Your task to perform on an android device: toggle javascript in the chrome app Image 0: 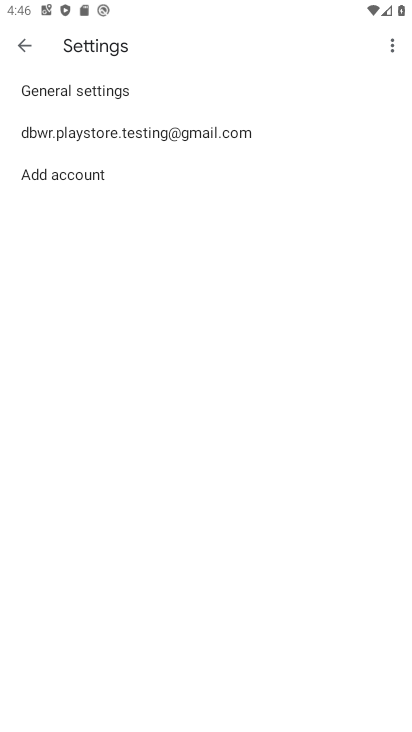
Step 0: press home button
Your task to perform on an android device: toggle javascript in the chrome app Image 1: 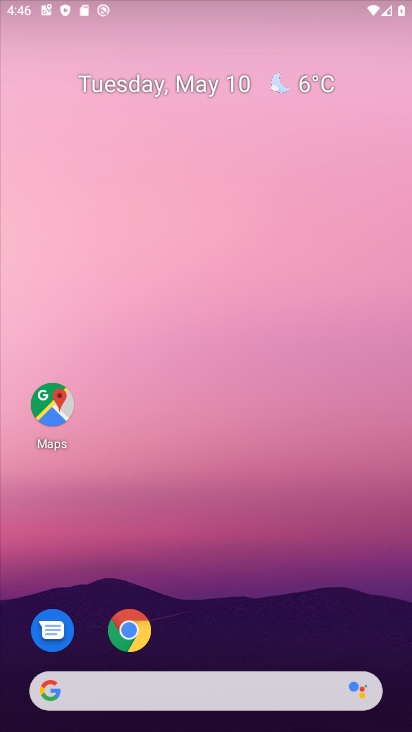
Step 1: drag from (352, 595) to (241, 116)
Your task to perform on an android device: toggle javascript in the chrome app Image 2: 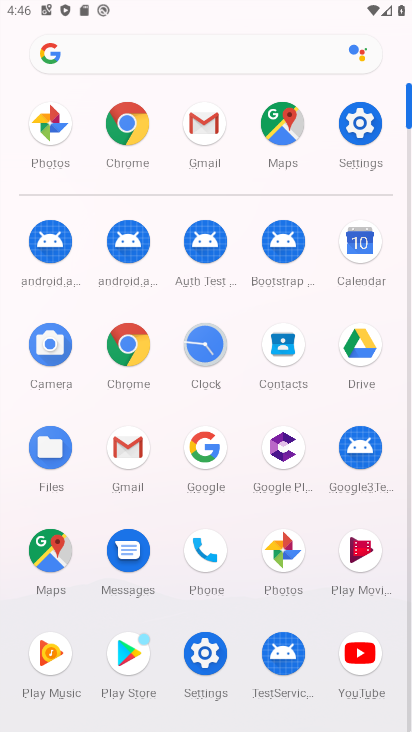
Step 2: click (131, 347)
Your task to perform on an android device: toggle javascript in the chrome app Image 3: 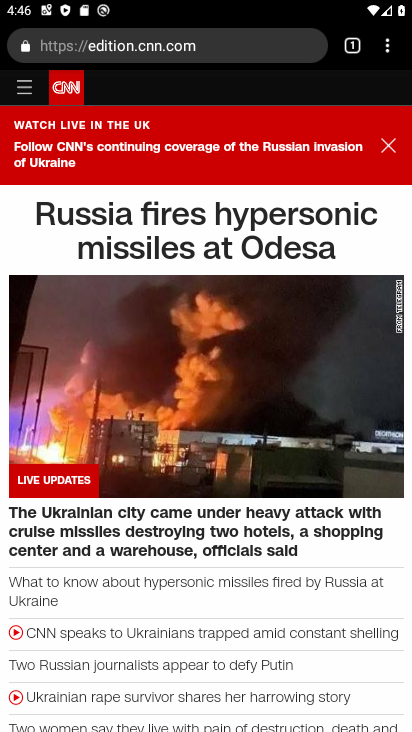
Step 3: drag from (390, 51) to (235, 514)
Your task to perform on an android device: toggle javascript in the chrome app Image 4: 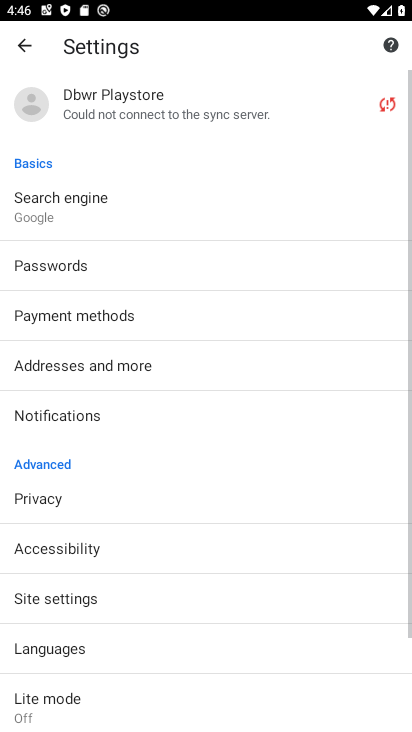
Step 4: drag from (167, 584) to (254, 208)
Your task to perform on an android device: toggle javascript in the chrome app Image 5: 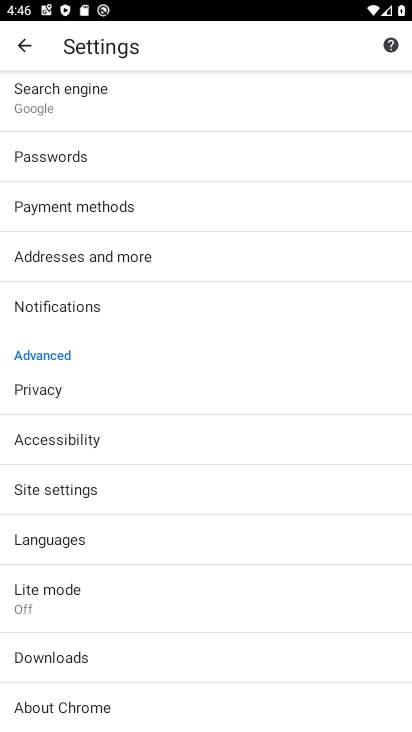
Step 5: click (92, 489)
Your task to perform on an android device: toggle javascript in the chrome app Image 6: 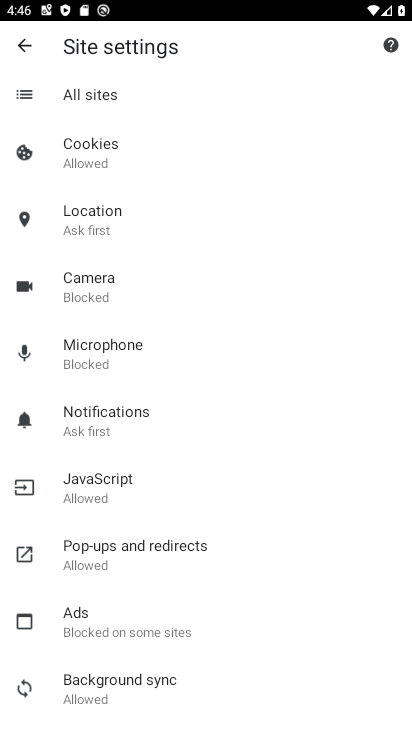
Step 6: click (125, 495)
Your task to perform on an android device: toggle javascript in the chrome app Image 7: 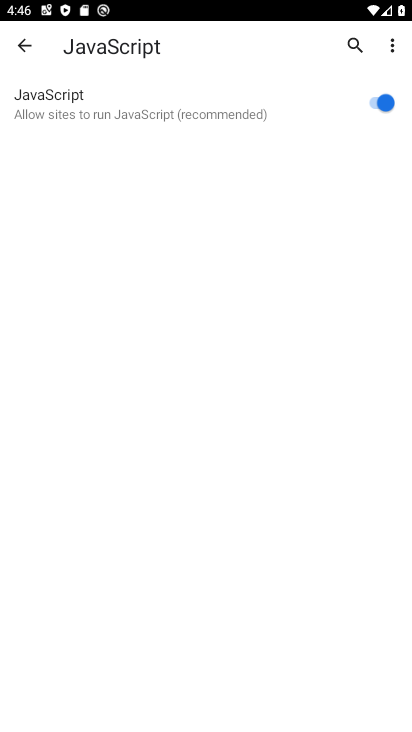
Step 7: click (381, 110)
Your task to perform on an android device: toggle javascript in the chrome app Image 8: 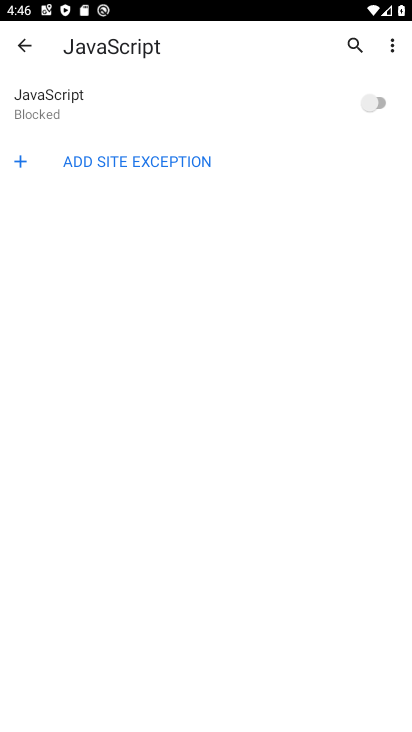
Step 8: task complete